Your task to perform on an android device: What's the weather going to be tomorrow? Image 0: 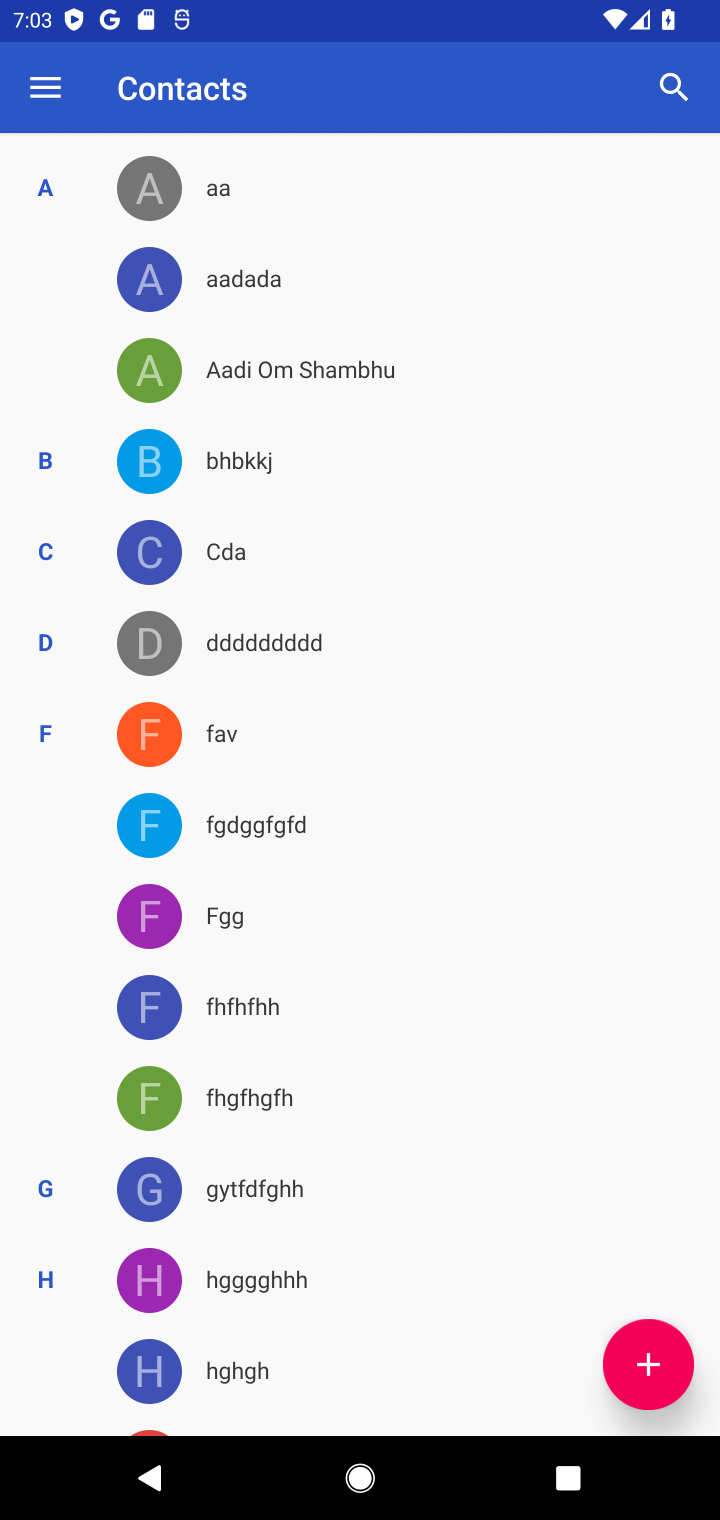
Step 0: press home button
Your task to perform on an android device: What's the weather going to be tomorrow? Image 1: 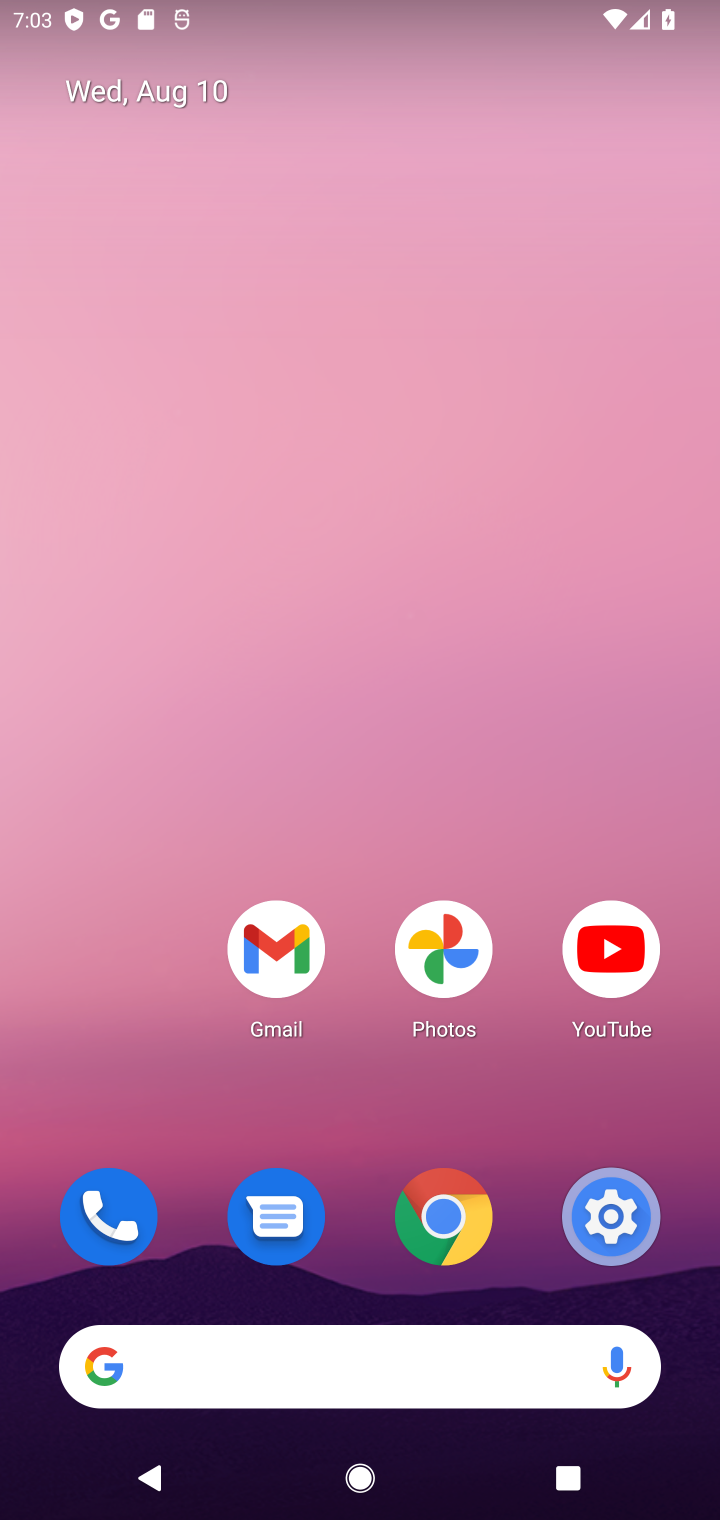
Step 1: click (340, 1373)
Your task to perform on an android device: What's the weather going to be tomorrow? Image 2: 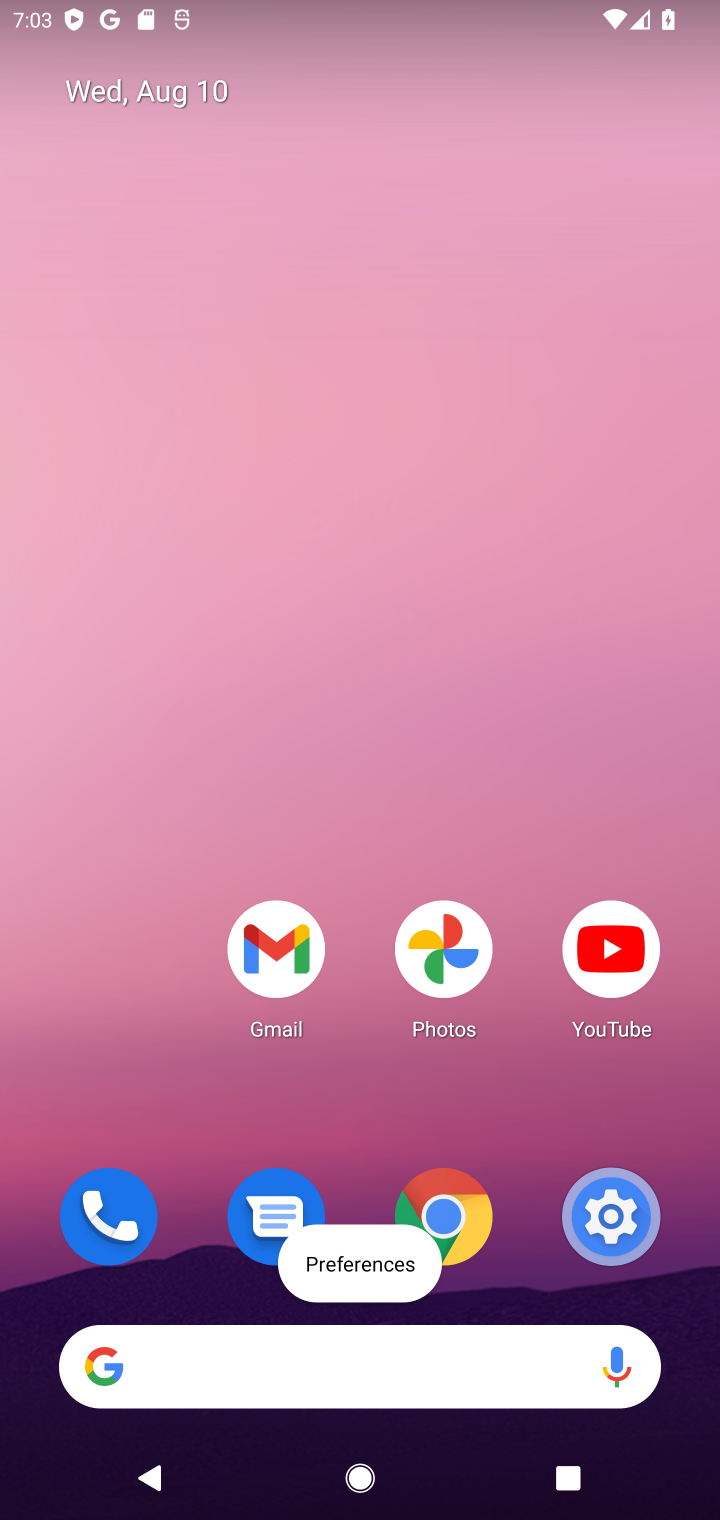
Step 2: click (259, 1340)
Your task to perform on an android device: What's the weather going to be tomorrow? Image 3: 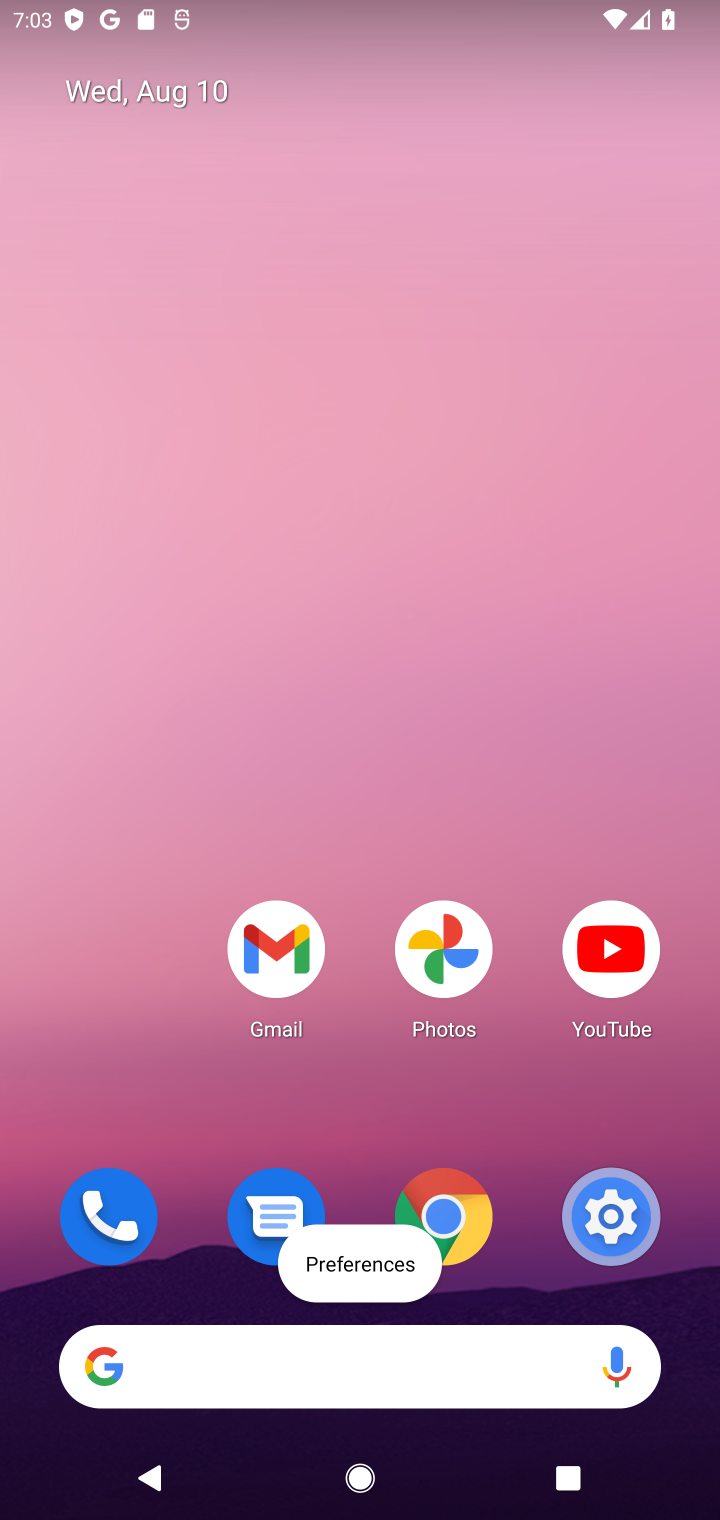
Step 3: click (271, 1381)
Your task to perform on an android device: What's the weather going to be tomorrow? Image 4: 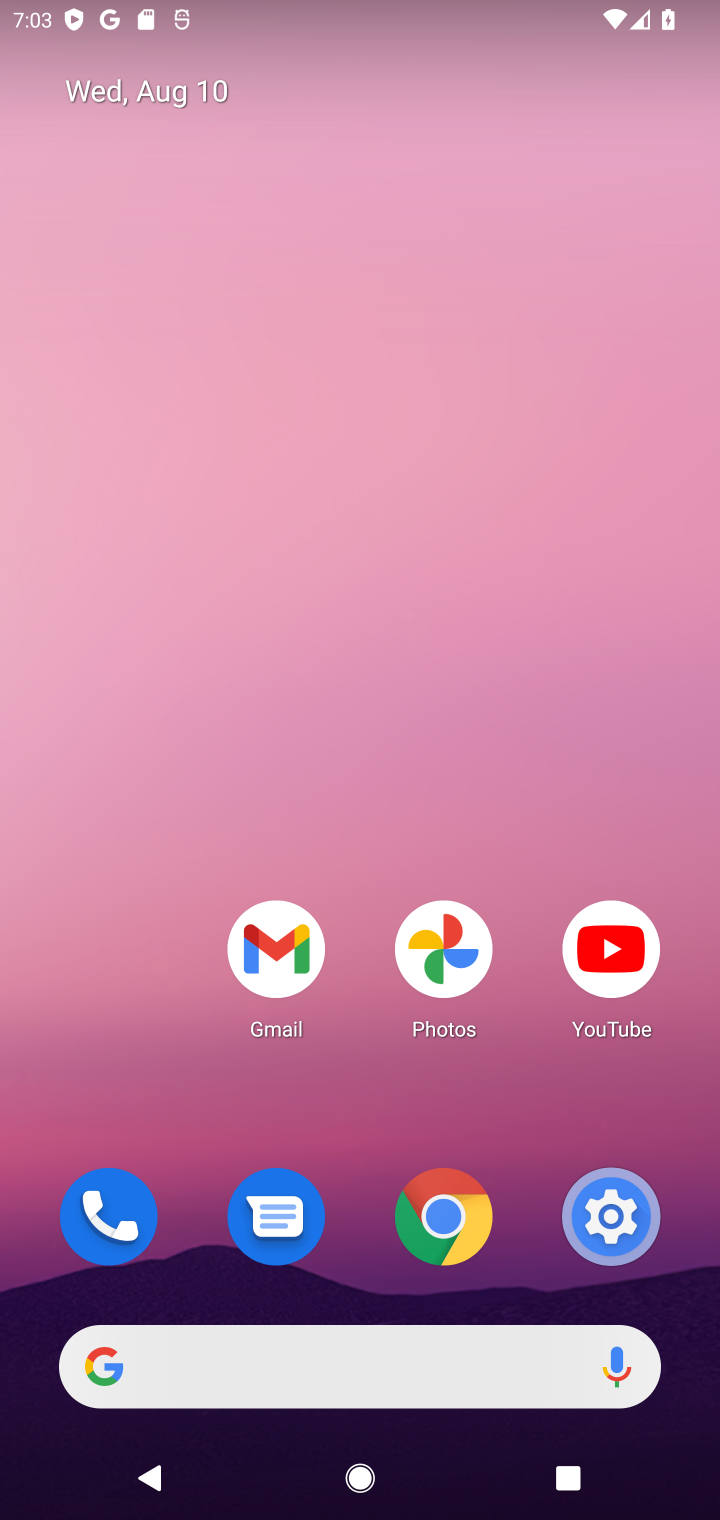
Step 4: click (317, 1327)
Your task to perform on an android device: What's the weather going to be tomorrow? Image 5: 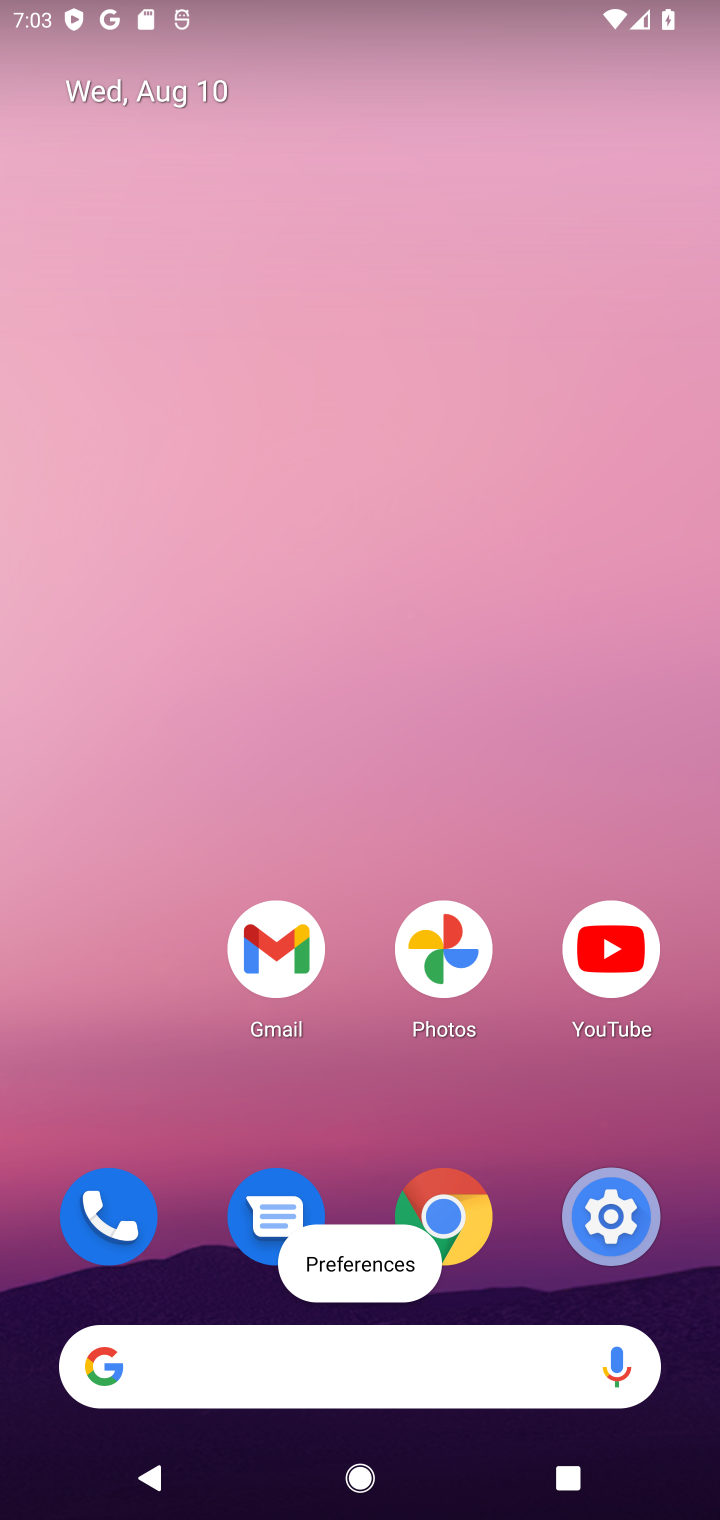
Step 5: click (448, 1213)
Your task to perform on an android device: What's the weather going to be tomorrow? Image 6: 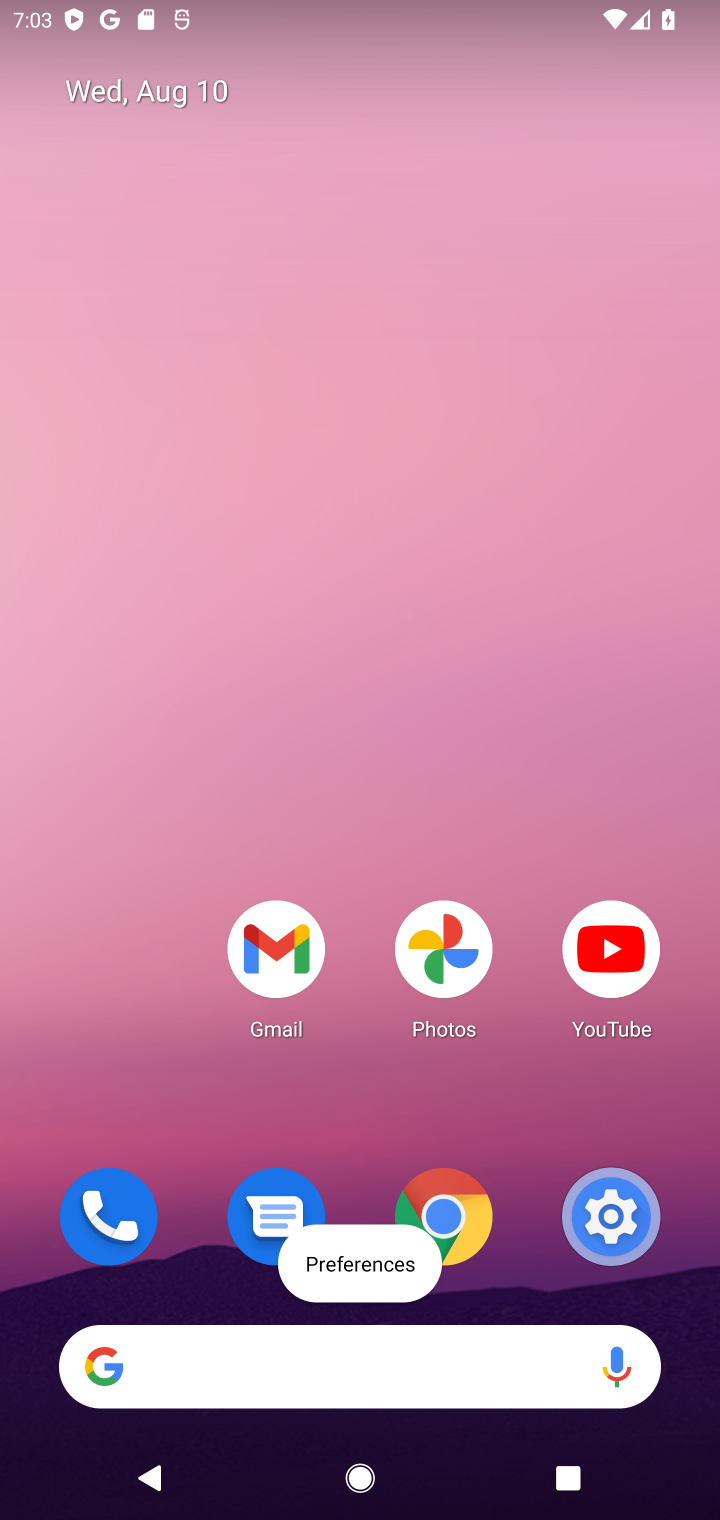
Step 6: click (395, 1383)
Your task to perform on an android device: What's the weather going to be tomorrow? Image 7: 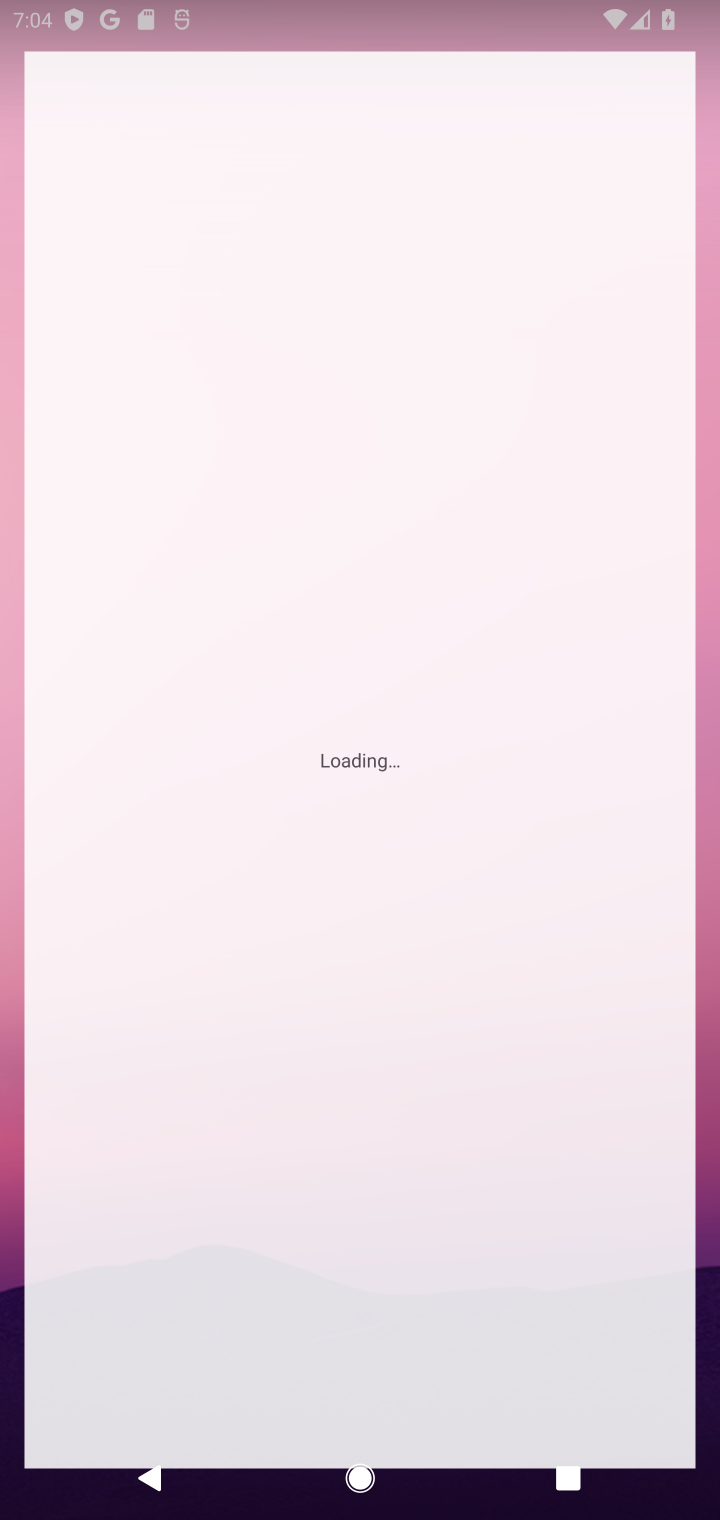
Step 7: click (365, 1351)
Your task to perform on an android device: What's the weather going to be tomorrow? Image 8: 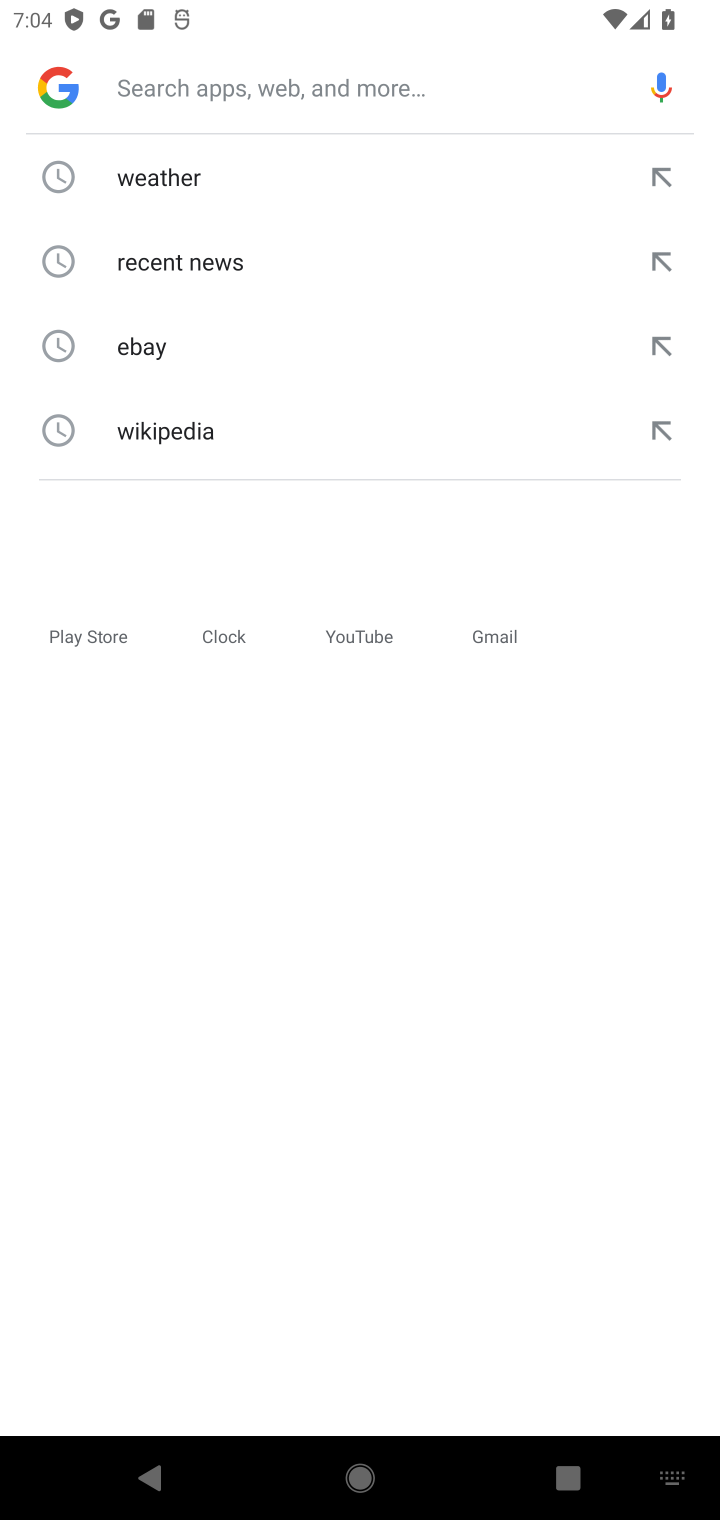
Step 8: click (328, 97)
Your task to perform on an android device: What's the weather going to be tomorrow? Image 9: 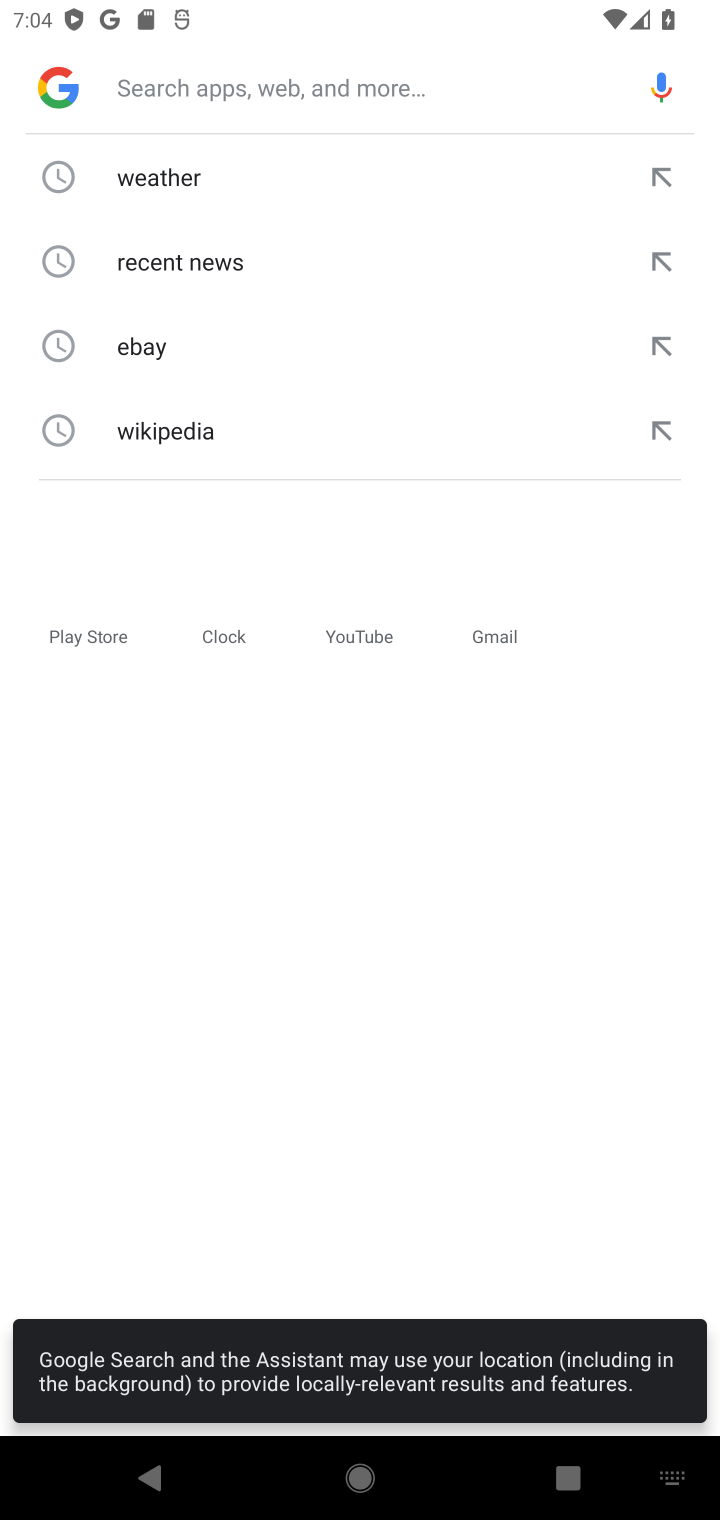
Step 9: click (263, 172)
Your task to perform on an android device: What's the weather going to be tomorrow? Image 10: 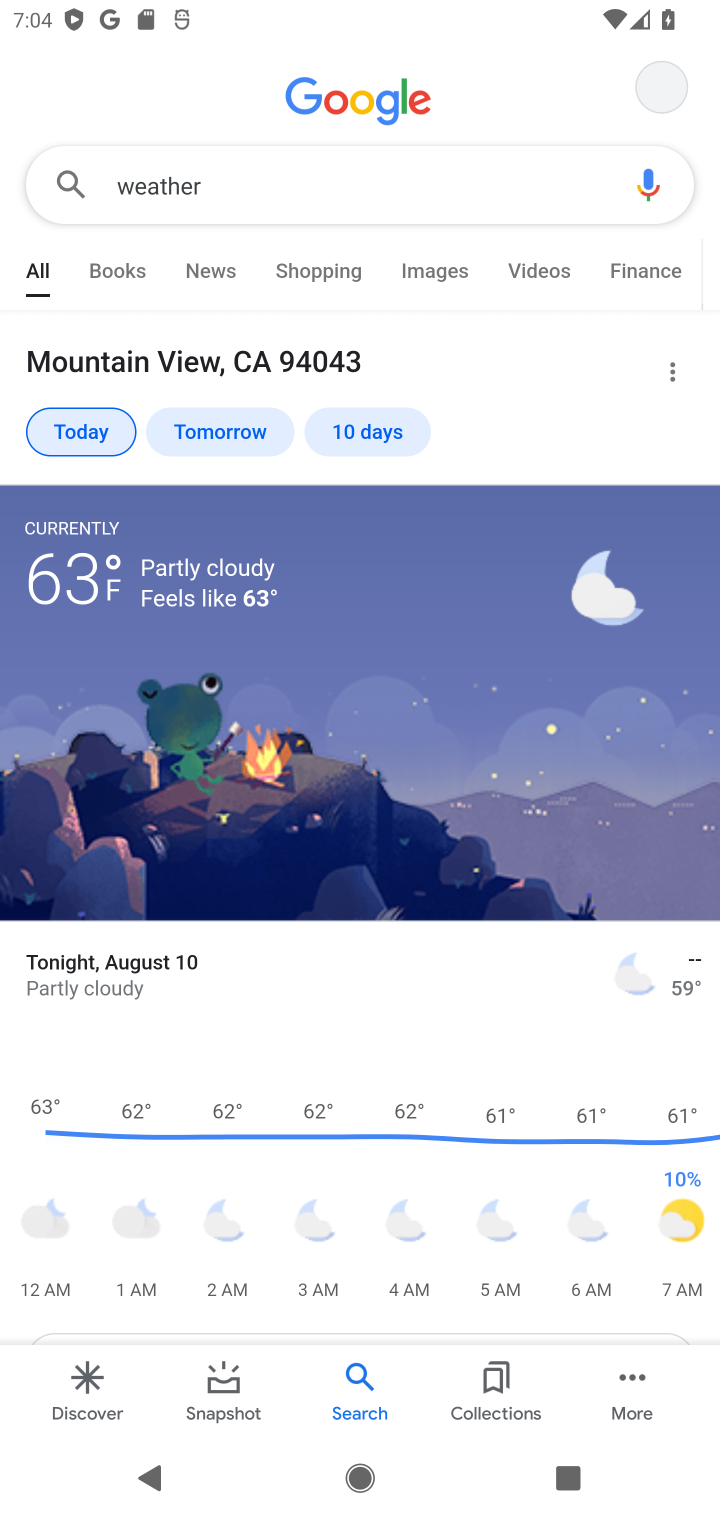
Step 10: click (226, 428)
Your task to perform on an android device: What's the weather going to be tomorrow? Image 11: 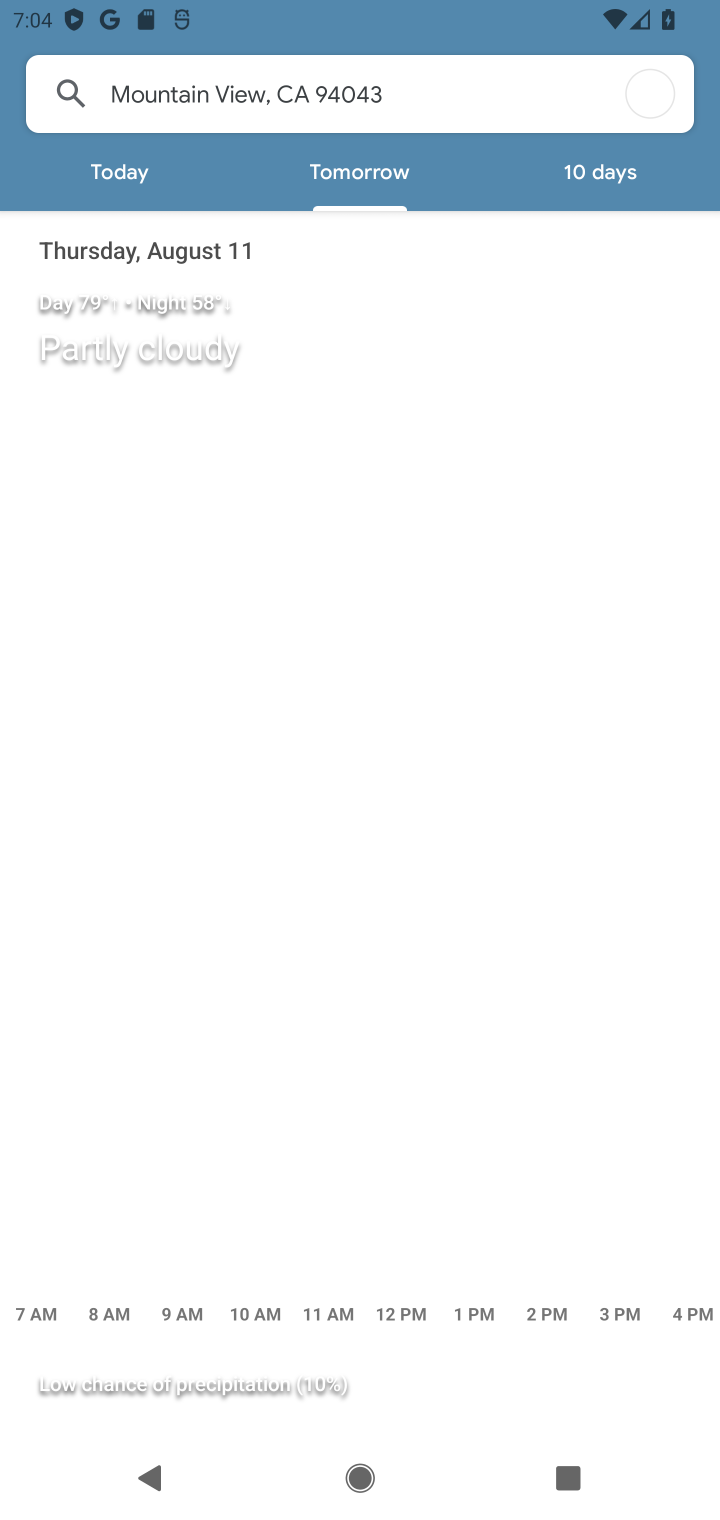
Step 11: task complete